Your task to perform on an android device: turn off airplane mode Image 0: 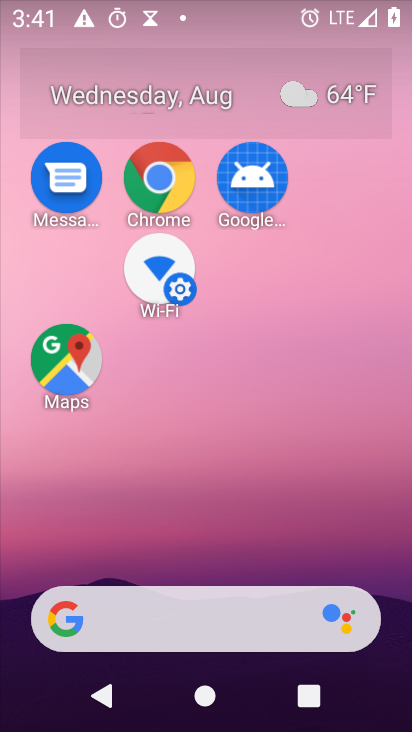
Step 0: press home button
Your task to perform on an android device: turn off airplane mode Image 1: 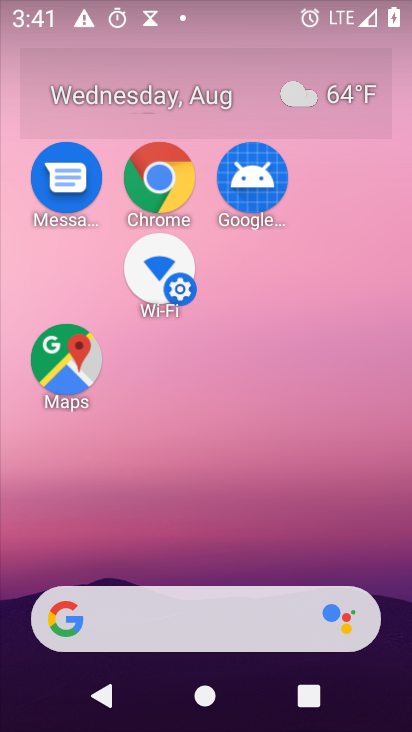
Step 1: drag from (361, 507) to (405, 44)
Your task to perform on an android device: turn off airplane mode Image 2: 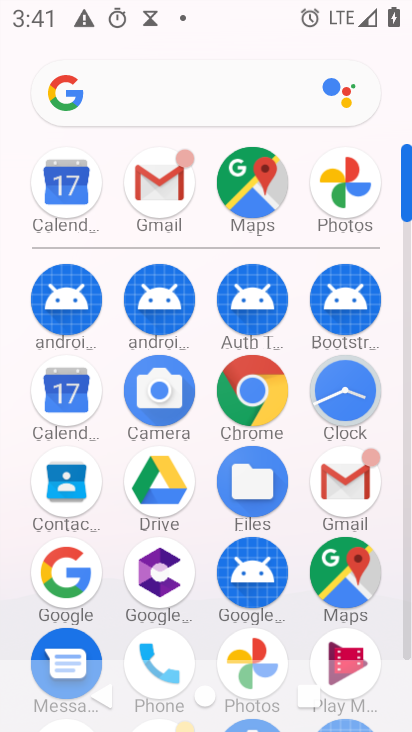
Step 2: drag from (210, 593) to (253, 66)
Your task to perform on an android device: turn off airplane mode Image 3: 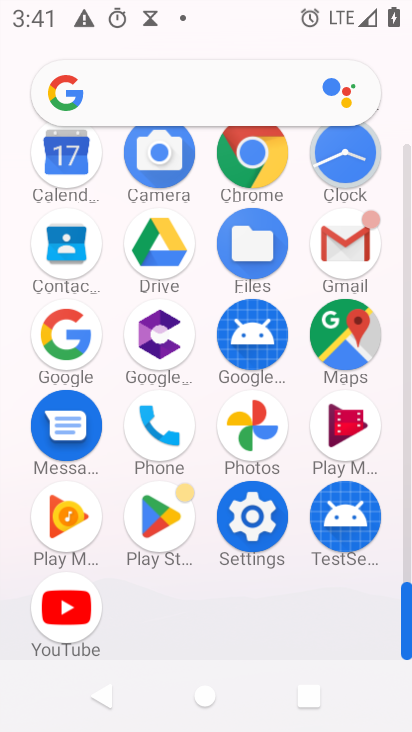
Step 3: click (233, 520)
Your task to perform on an android device: turn off airplane mode Image 4: 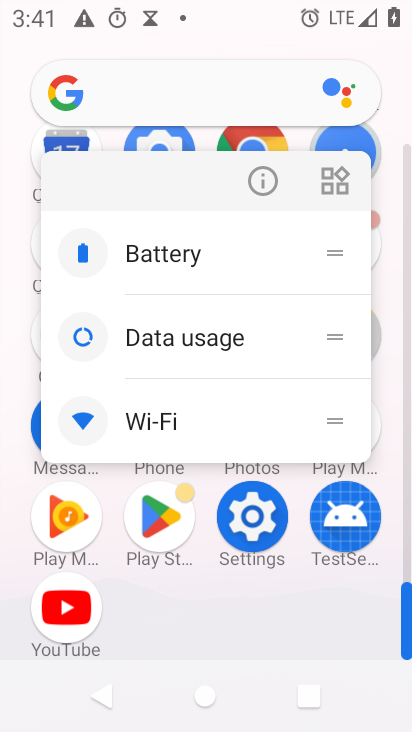
Step 4: click (237, 530)
Your task to perform on an android device: turn off airplane mode Image 5: 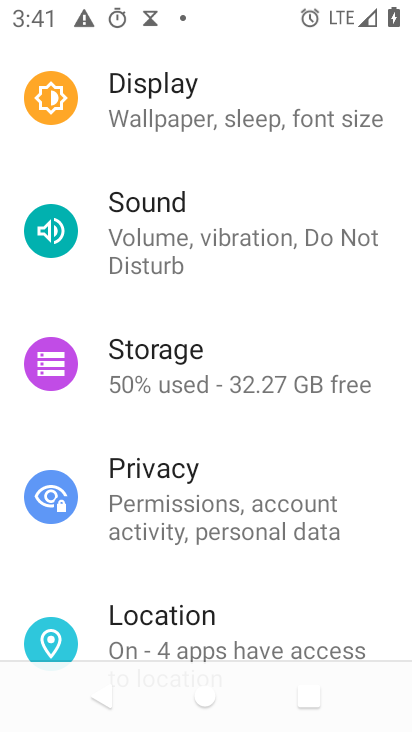
Step 5: drag from (281, 184) to (198, 723)
Your task to perform on an android device: turn off airplane mode Image 6: 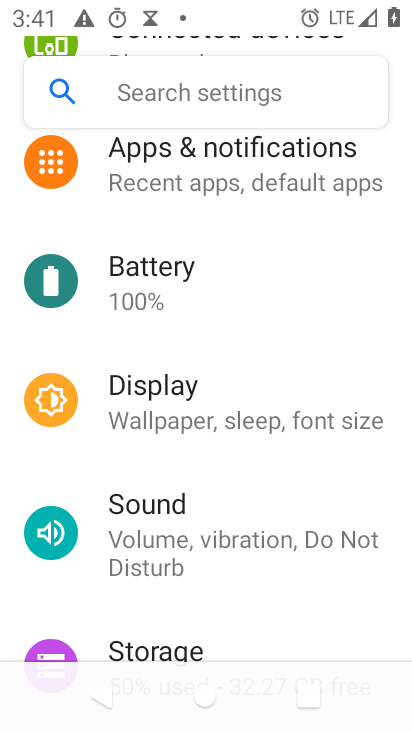
Step 6: drag from (270, 331) to (236, 718)
Your task to perform on an android device: turn off airplane mode Image 7: 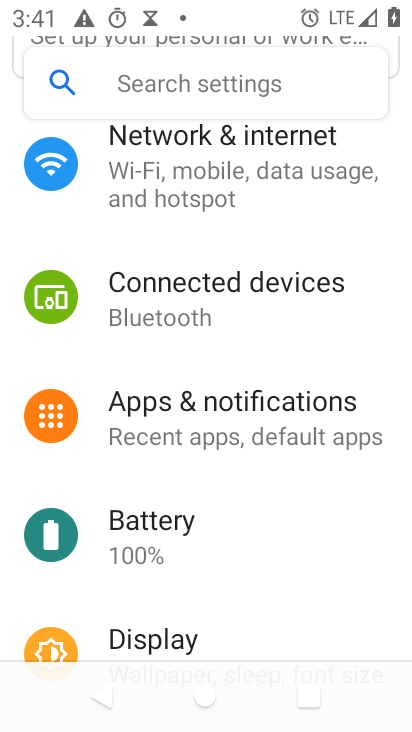
Step 7: click (249, 171)
Your task to perform on an android device: turn off airplane mode Image 8: 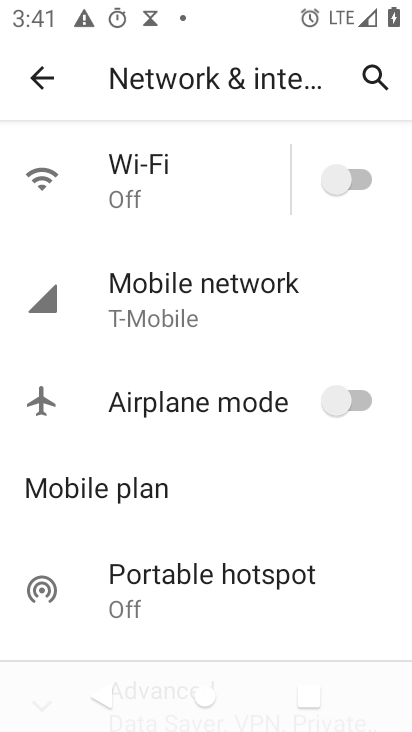
Step 8: task complete